Your task to perform on an android device: Go to eBay Image 0: 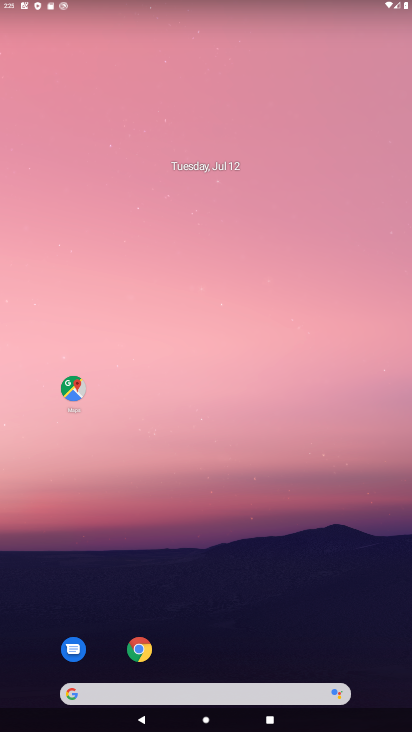
Step 0: click (124, 646)
Your task to perform on an android device: Go to eBay Image 1: 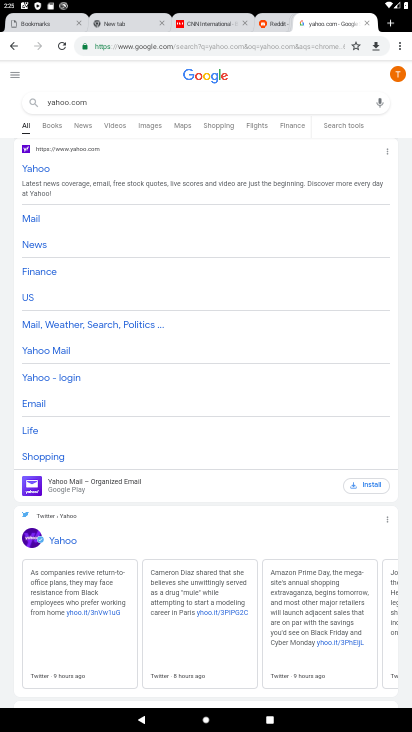
Step 1: click (129, 55)
Your task to perform on an android device: Go to eBay Image 2: 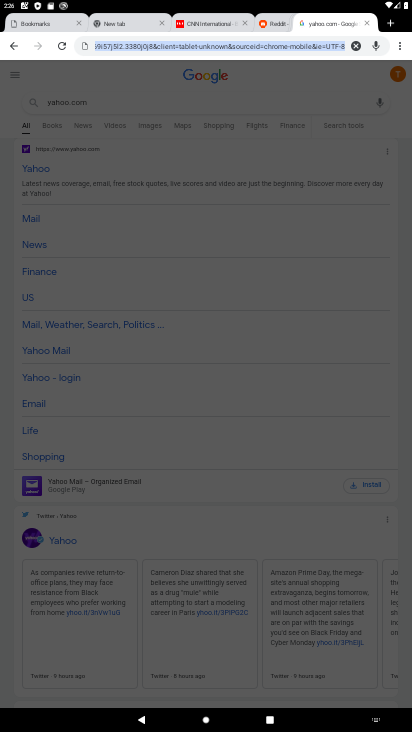
Step 2: type "ebay.com"
Your task to perform on an android device: Go to eBay Image 3: 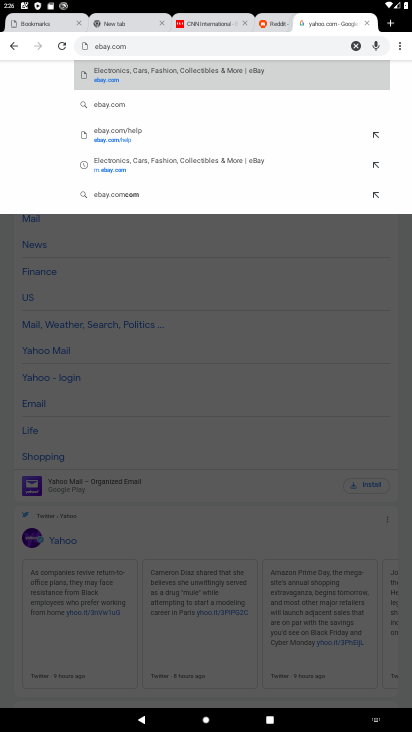
Step 3: click (206, 86)
Your task to perform on an android device: Go to eBay Image 4: 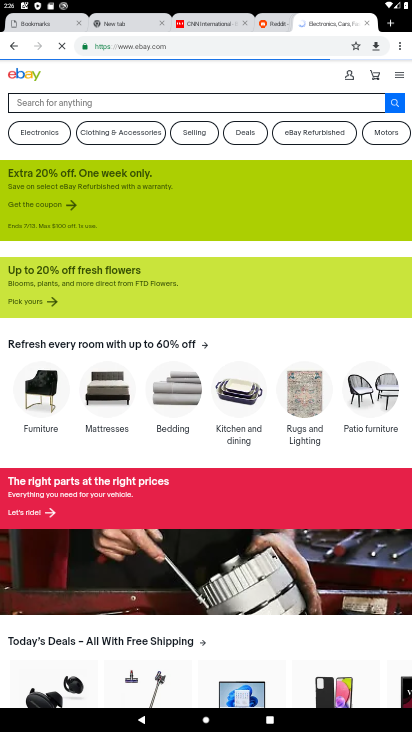
Step 4: task complete